Your task to perform on an android device: turn off wifi Image 0: 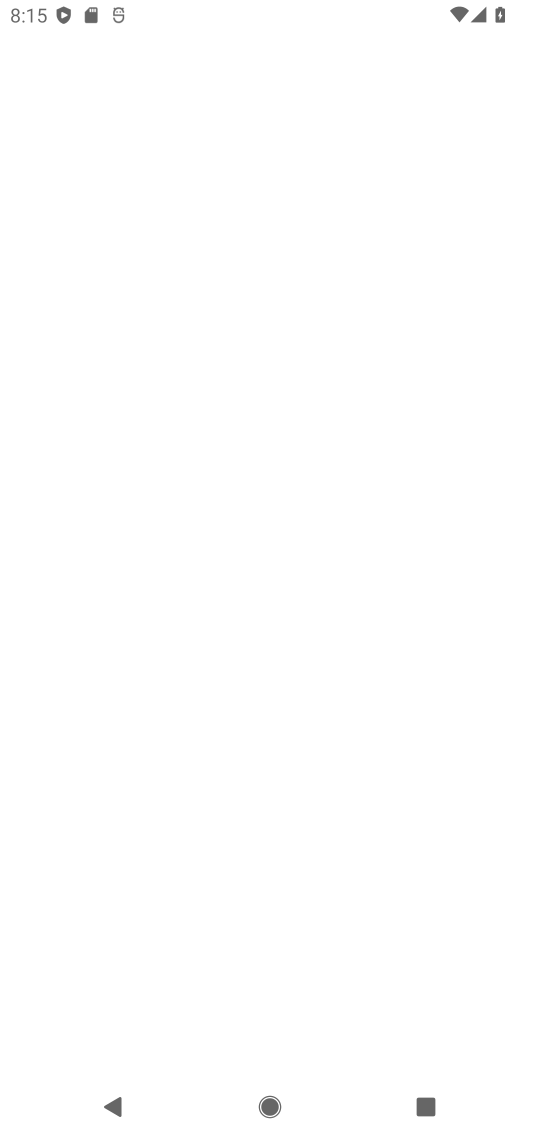
Step 0: press home button
Your task to perform on an android device: turn off wifi Image 1: 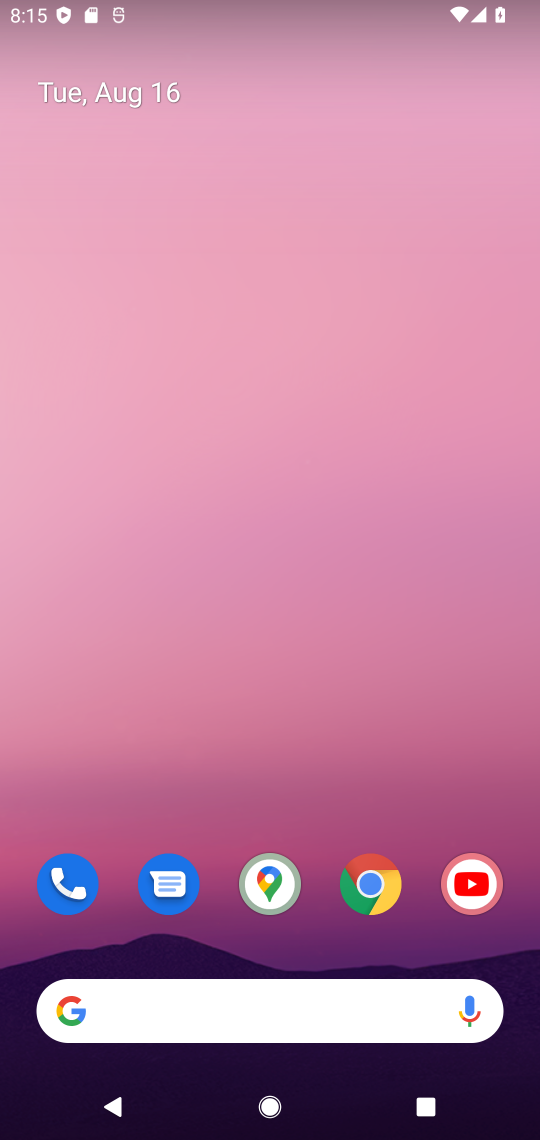
Step 1: drag from (428, 947) to (391, 360)
Your task to perform on an android device: turn off wifi Image 2: 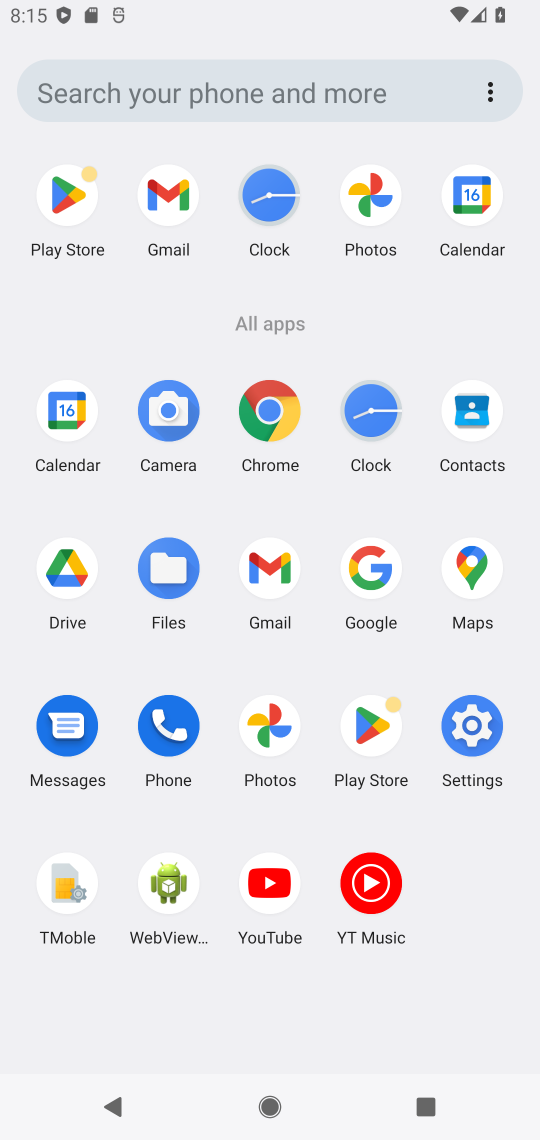
Step 2: click (469, 723)
Your task to perform on an android device: turn off wifi Image 3: 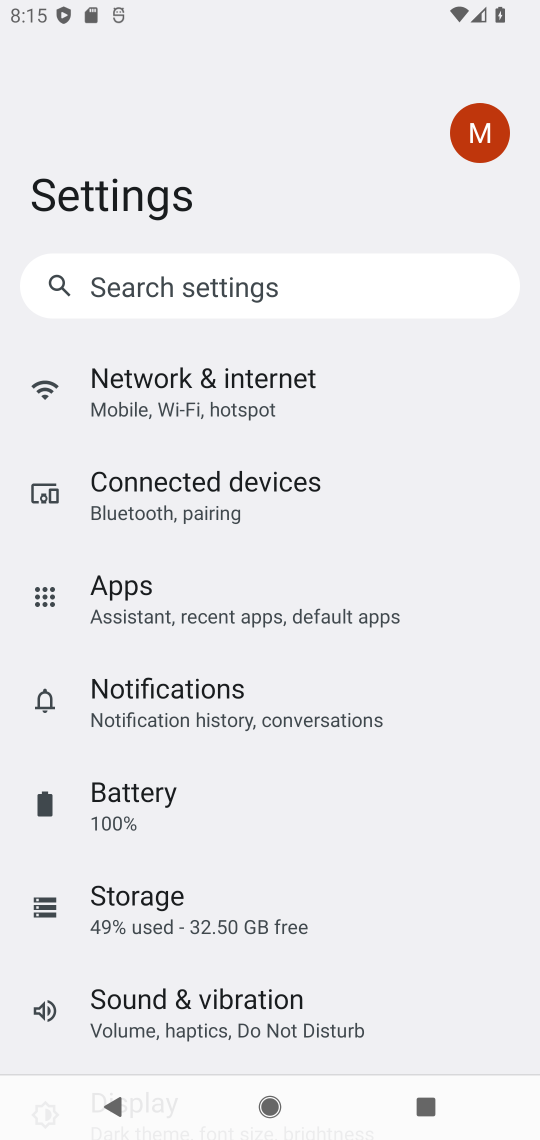
Step 3: click (175, 388)
Your task to perform on an android device: turn off wifi Image 4: 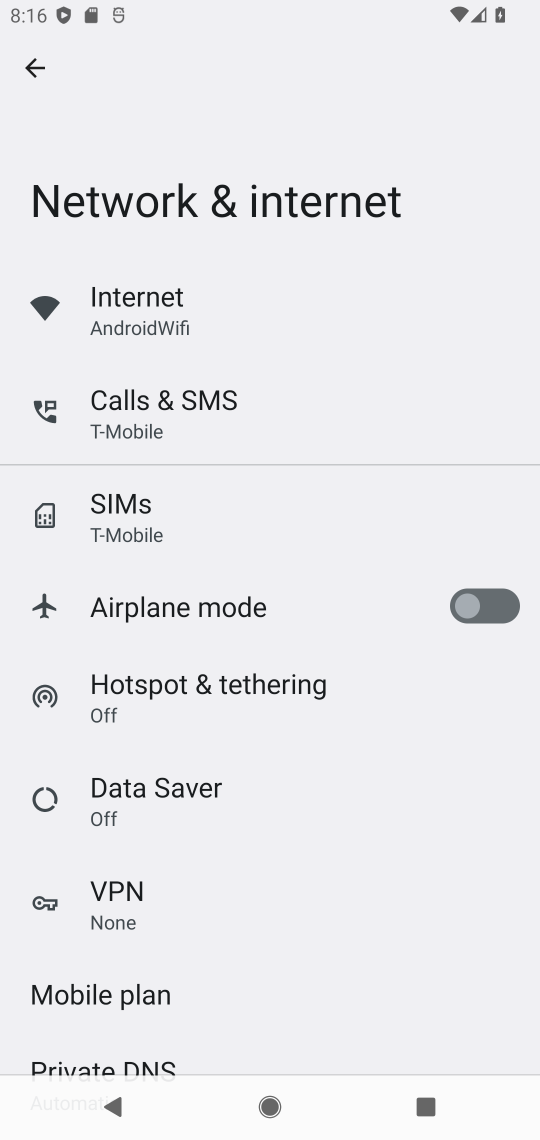
Step 4: click (139, 299)
Your task to perform on an android device: turn off wifi Image 5: 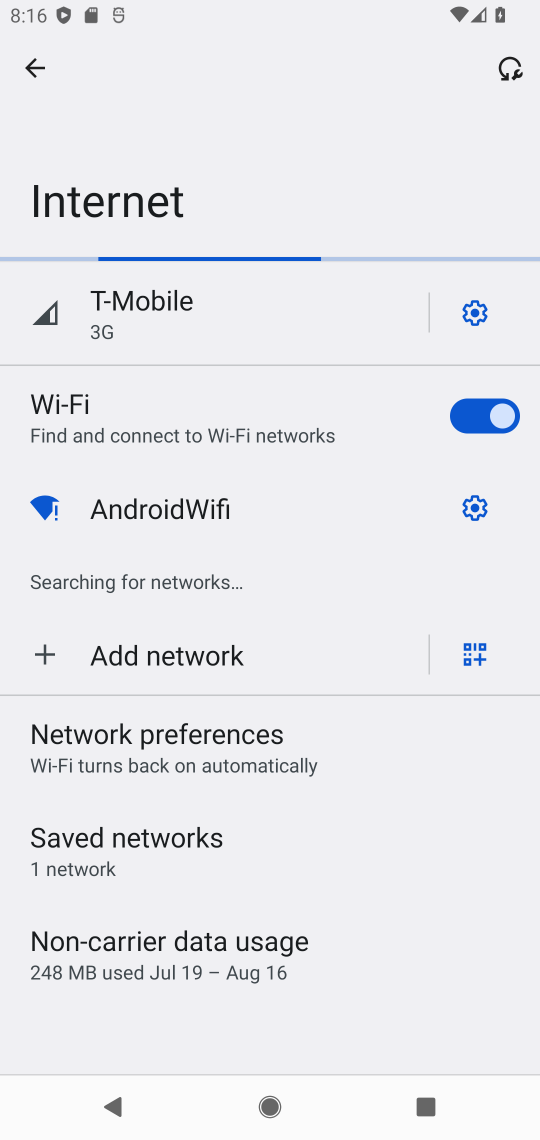
Step 5: click (460, 418)
Your task to perform on an android device: turn off wifi Image 6: 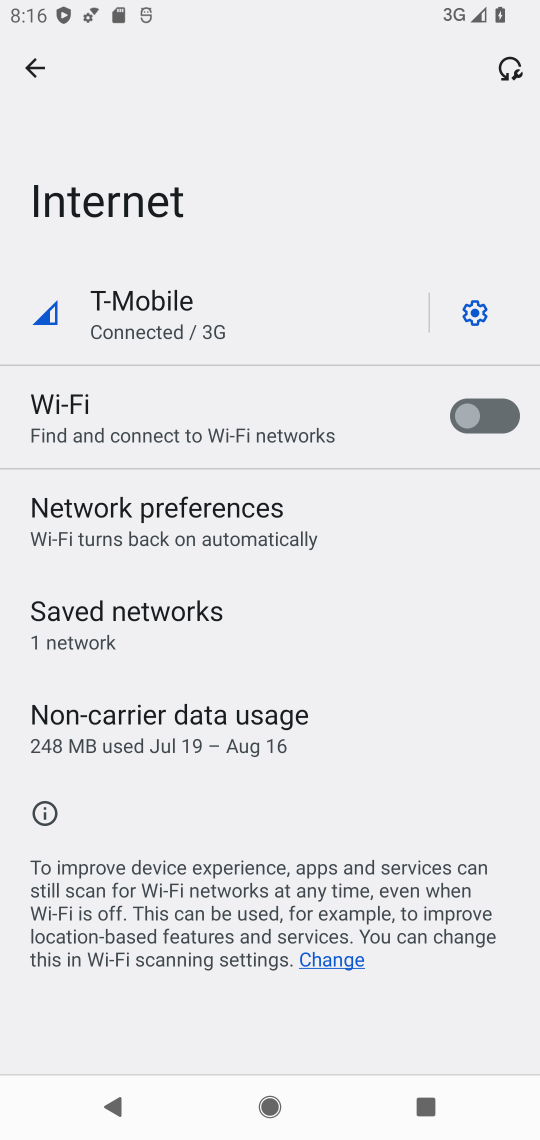
Step 6: task complete